Your task to perform on an android device: Find coffee shops on Maps Image 0: 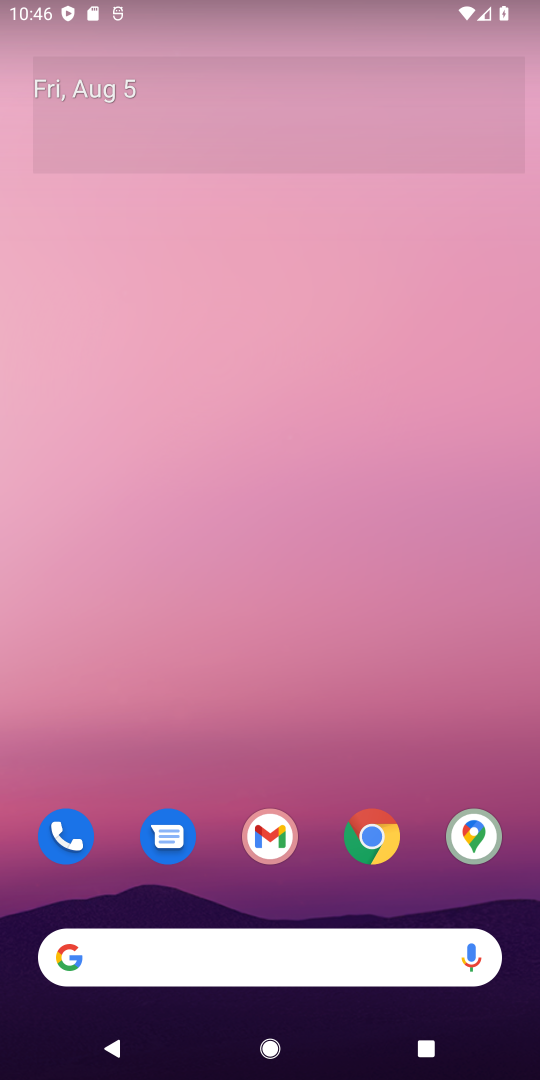
Step 0: drag from (322, 603) to (367, 178)
Your task to perform on an android device: Find coffee shops on Maps Image 1: 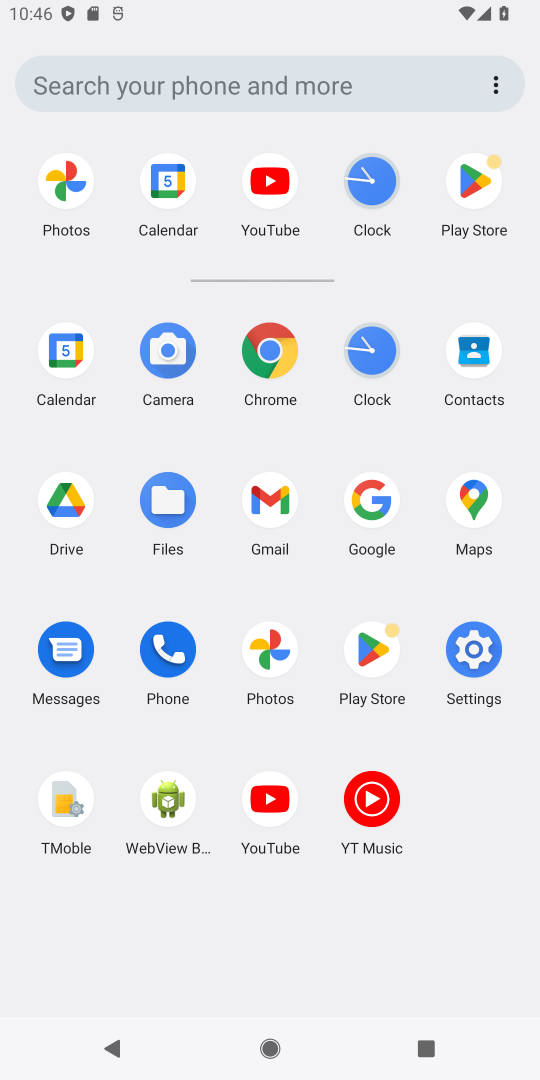
Step 1: click (482, 504)
Your task to perform on an android device: Find coffee shops on Maps Image 2: 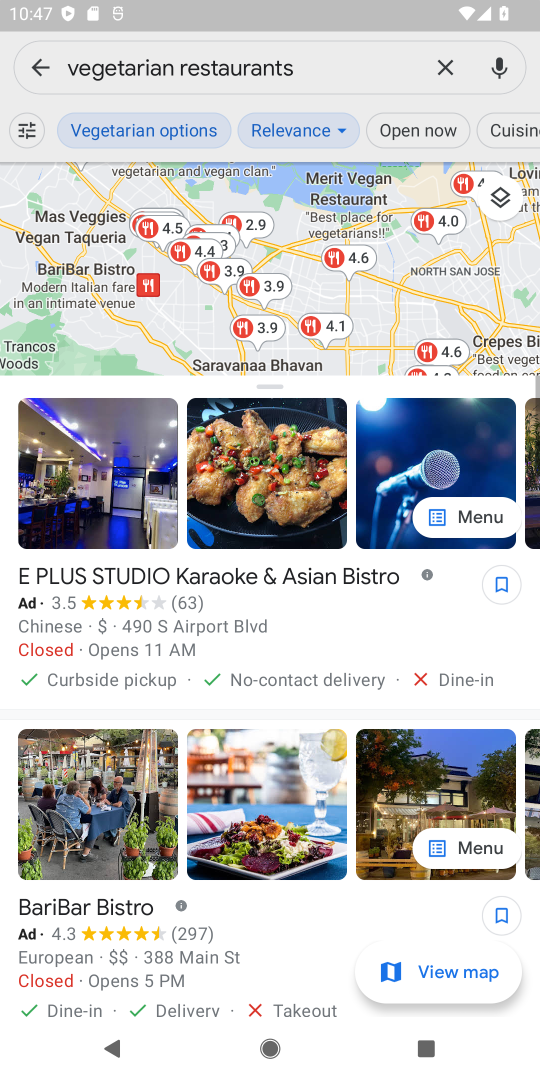
Step 2: click (287, 68)
Your task to perform on an android device: Find coffee shops on Maps Image 3: 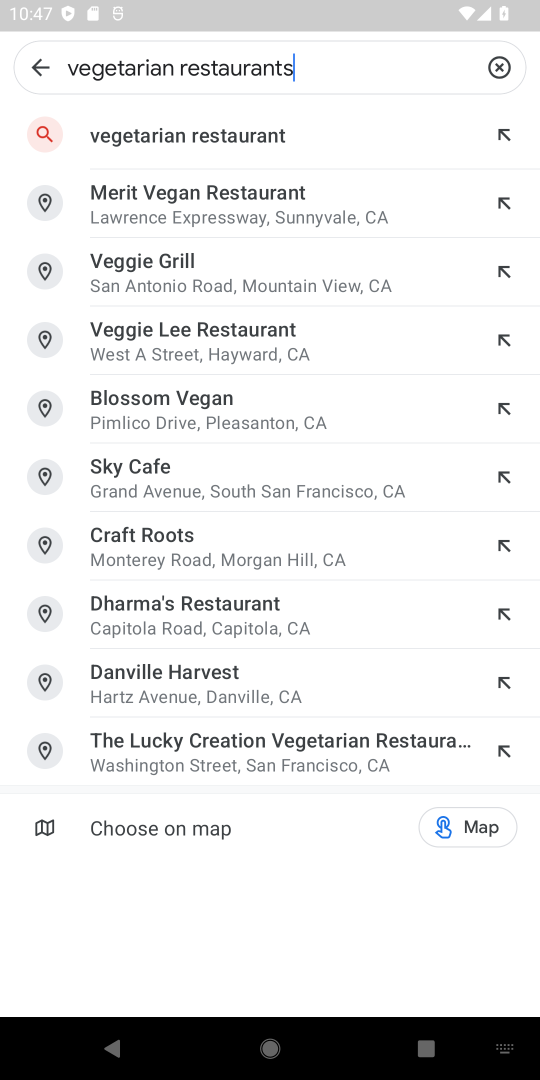
Step 3: click (499, 64)
Your task to perform on an android device: Find coffee shops on Maps Image 4: 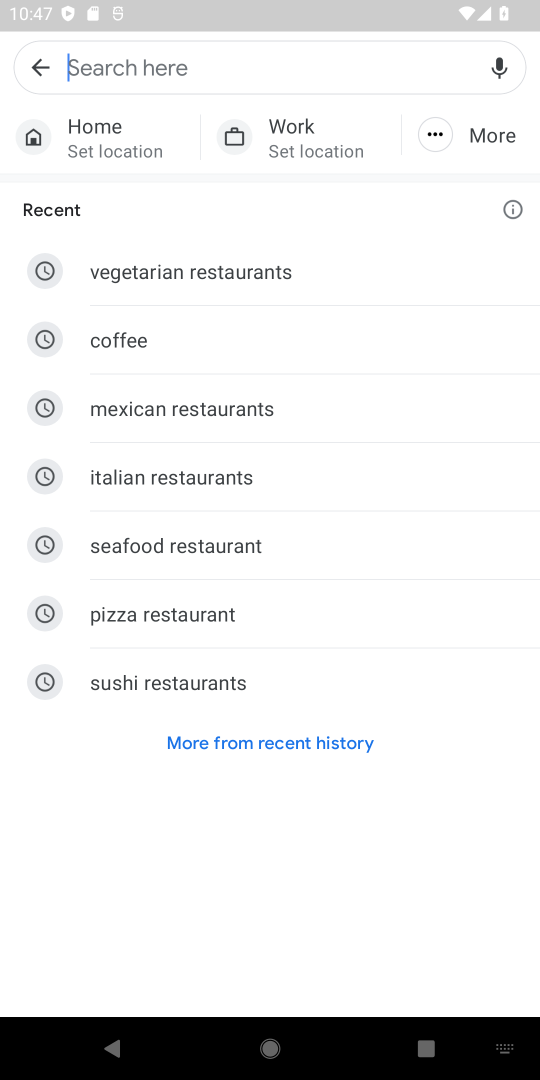
Step 4: type "coffee shops"
Your task to perform on an android device: Find coffee shops on Maps Image 5: 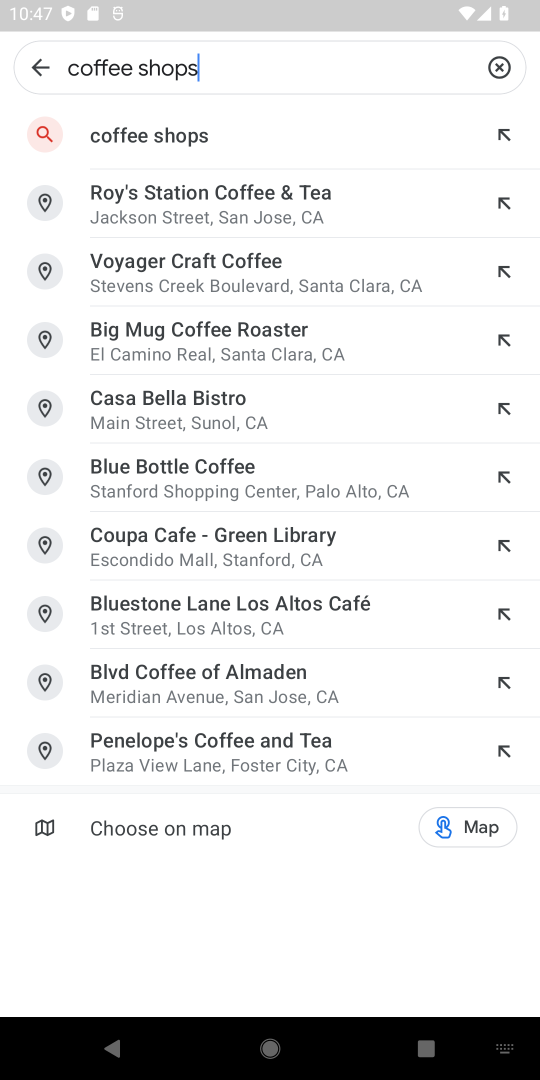
Step 5: click (248, 137)
Your task to perform on an android device: Find coffee shops on Maps Image 6: 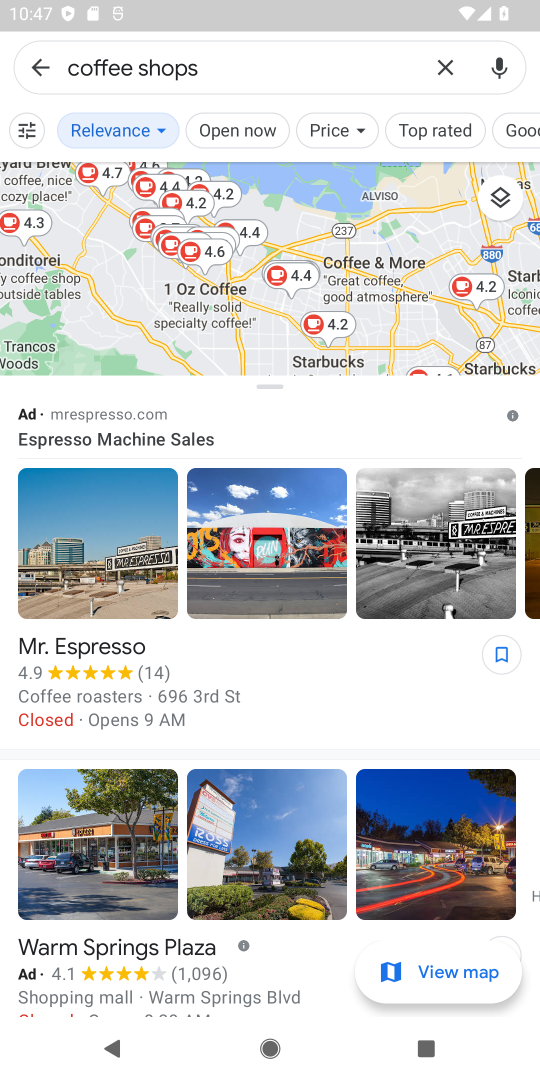
Step 6: task complete